Your task to perform on an android device: read, delete, or share a saved page in the chrome app Image 0: 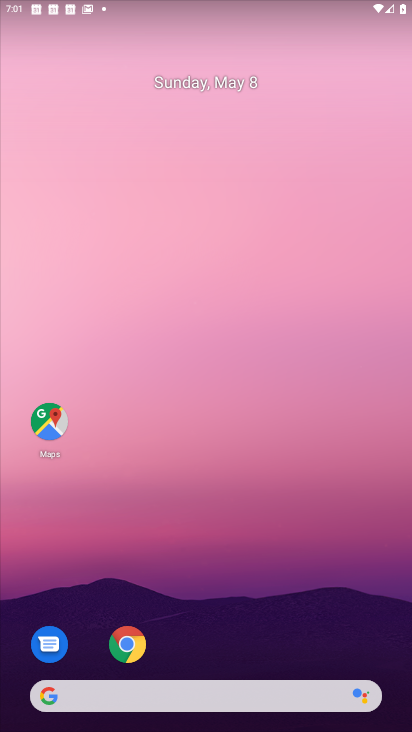
Step 0: drag from (272, 636) to (283, 511)
Your task to perform on an android device: read, delete, or share a saved page in the chrome app Image 1: 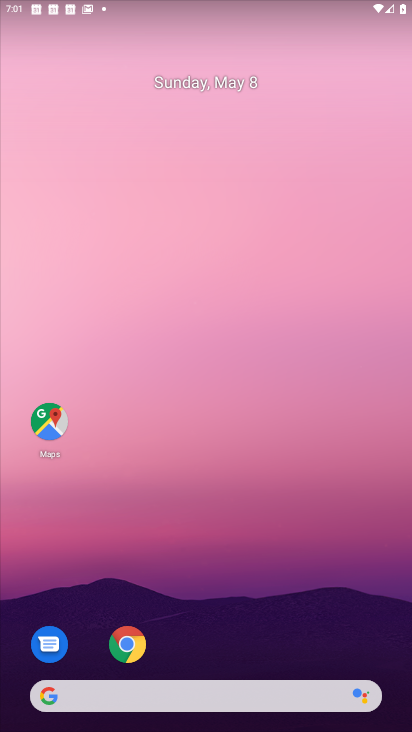
Step 1: drag from (235, 632) to (188, 345)
Your task to perform on an android device: read, delete, or share a saved page in the chrome app Image 2: 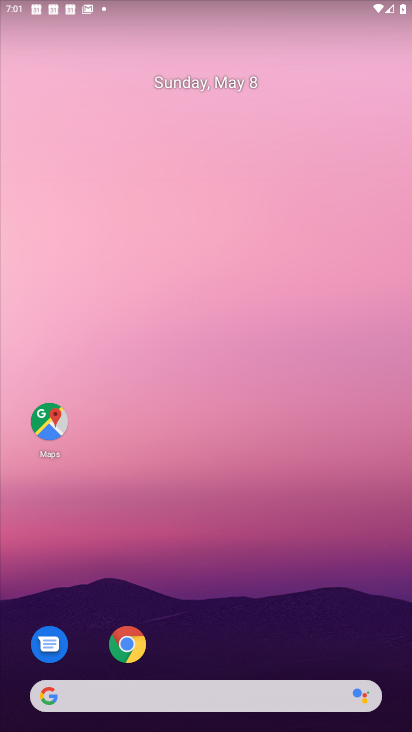
Step 2: click (186, 407)
Your task to perform on an android device: read, delete, or share a saved page in the chrome app Image 3: 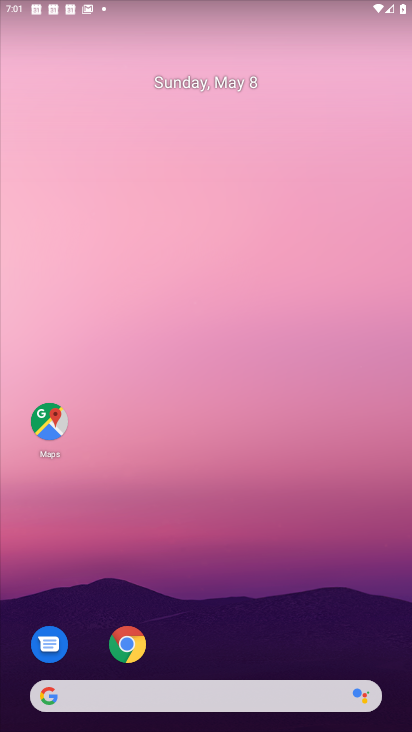
Step 3: drag from (341, 641) to (340, 106)
Your task to perform on an android device: read, delete, or share a saved page in the chrome app Image 4: 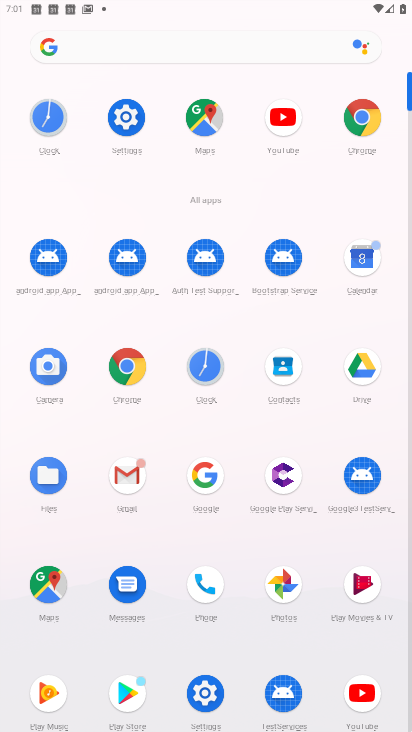
Step 4: click (360, 123)
Your task to perform on an android device: read, delete, or share a saved page in the chrome app Image 5: 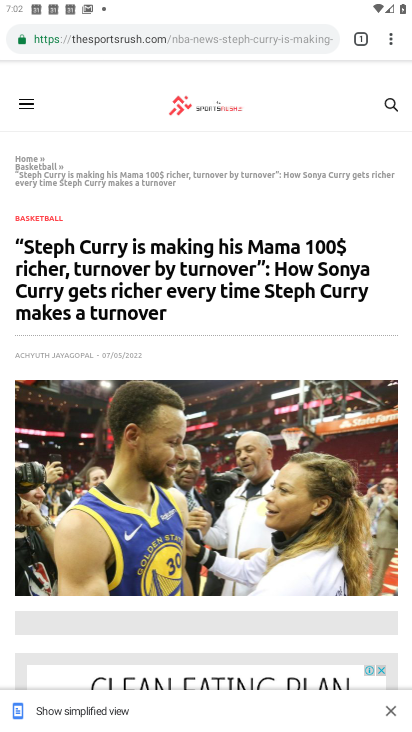
Step 5: task complete